Your task to perform on an android device: visit the assistant section in the google photos Image 0: 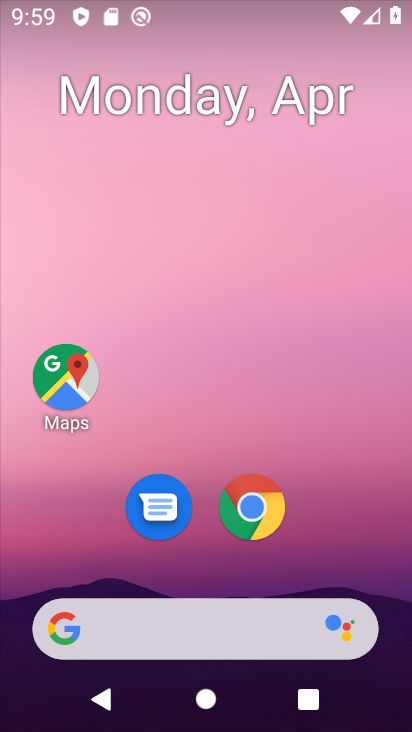
Step 0: drag from (364, 455) to (315, 7)
Your task to perform on an android device: visit the assistant section in the google photos Image 1: 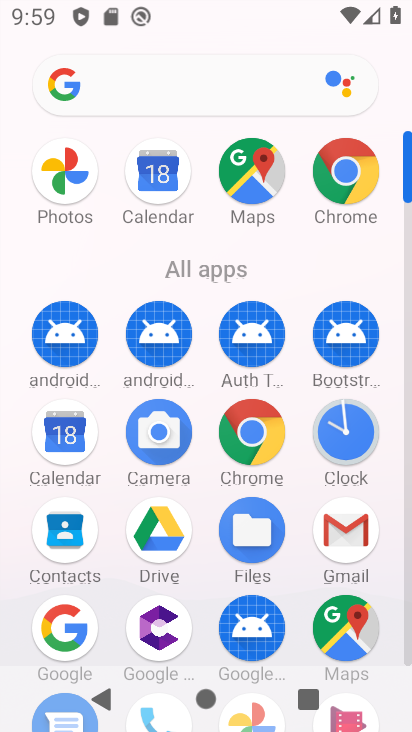
Step 1: click (71, 174)
Your task to perform on an android device: visit the assistant section in the google photos Image 2: 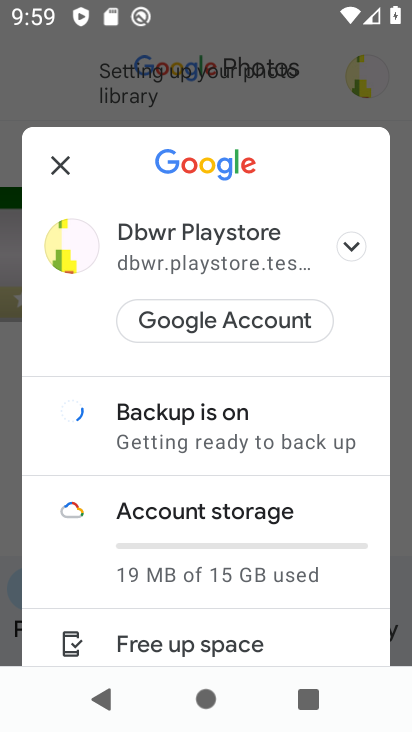
Step 2: drag from (97, 554) to (63, 441)
Your task to perform on an android device: visit the assistant section in the google photos Image 3: 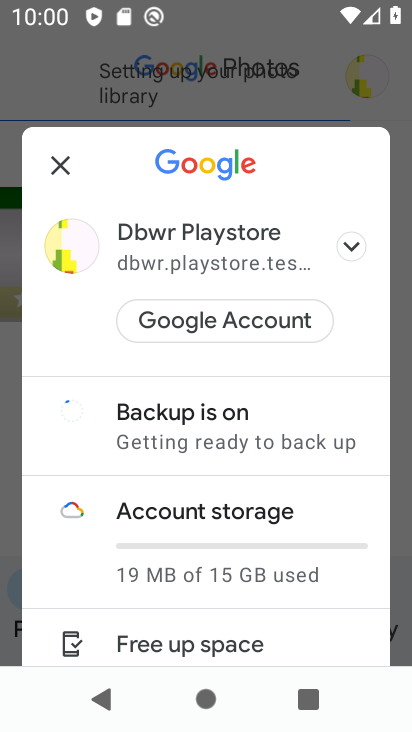
Step 3: click (58, 156)
Your task to perform on an android device: visit the assistant section in the google photos Image 4: 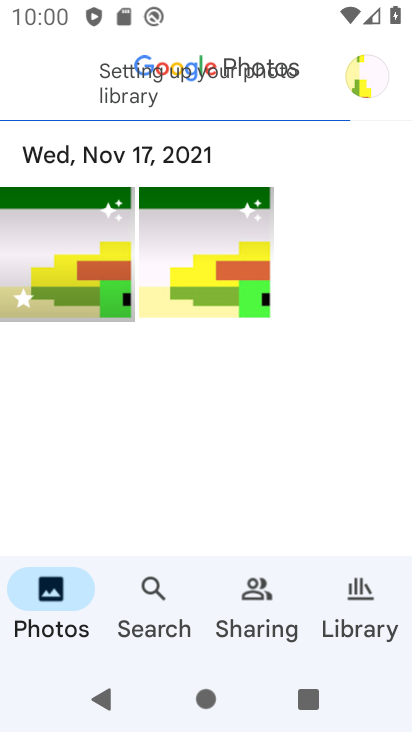
Step 4: click (361, 586)
Your task to perform on an android device: visit the assistant section in the google photos Image 5: 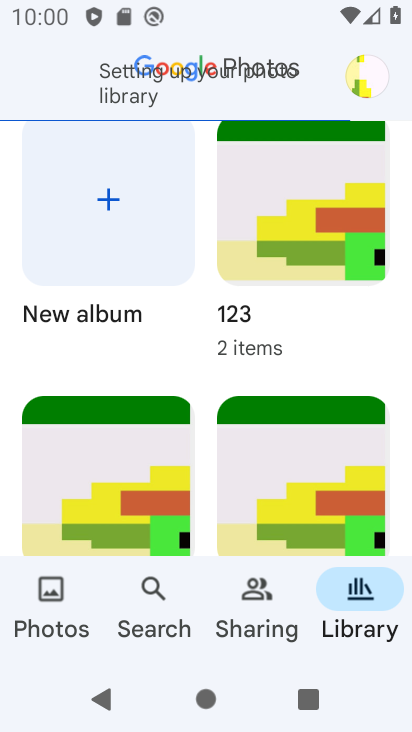
Step 5: drag from (268, 502) to (197, 610)
Your task to perform on an android device: visit the assistant section in the google photos Image 6: 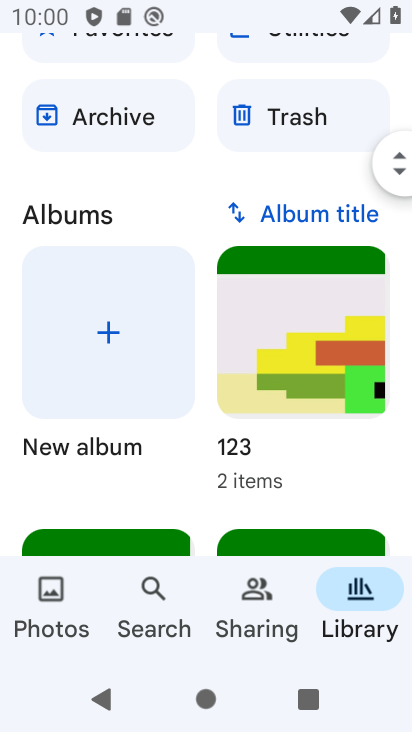
Step 6: drag from (198, 211) to (187, 479)
Your task to perform on an android device: visit the assistant section in the google photos Image 7: 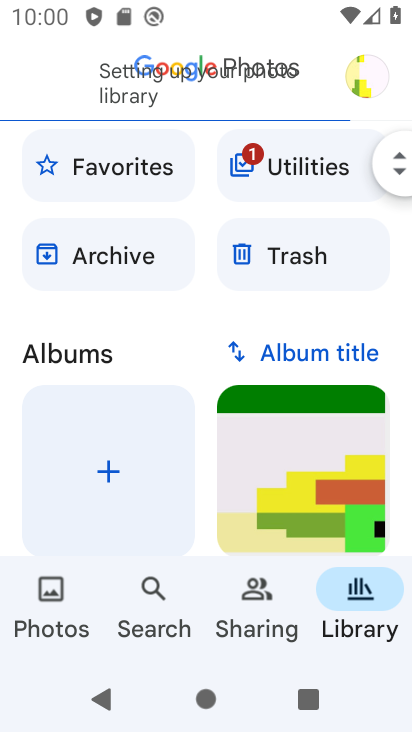
Step 7: click (258, 158)
Your task to perform on an android device: visit the assistant section in the google photos Image 8: 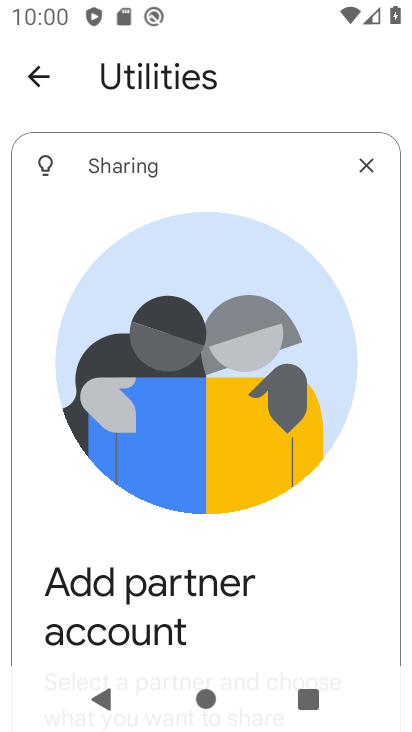
Step 8: task complete